Your task to perform on an android device: What's on my calendar today? Image 0: 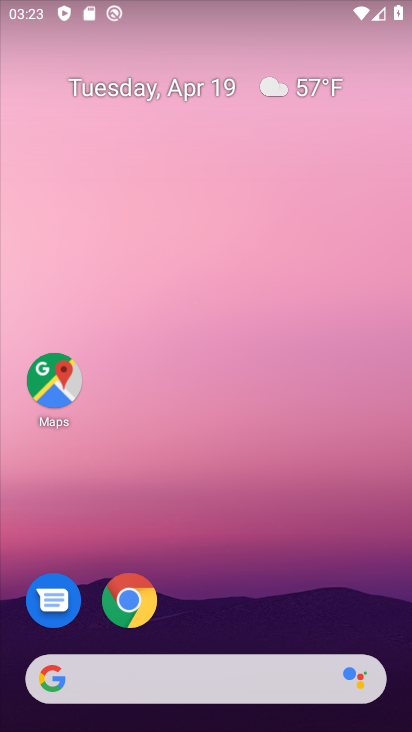
Step 0: drag from (249, 605) to (243, 154)
Your task to perform on an android device: What's on my calendar today? Image 1: 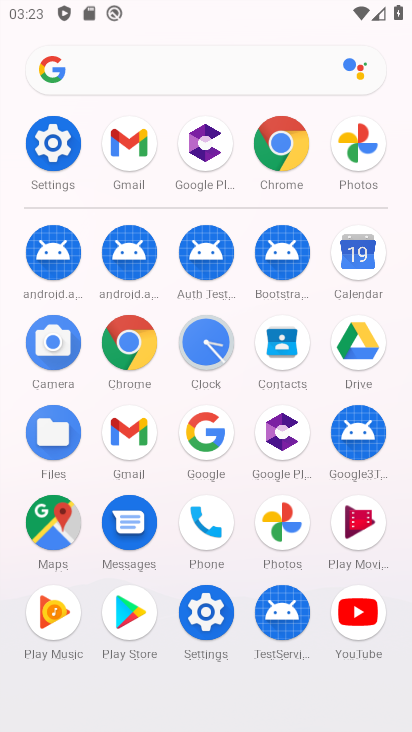
Step 1: click (361, 254)
Your task to perform on an android device: What's on my calendar today? Image 2: 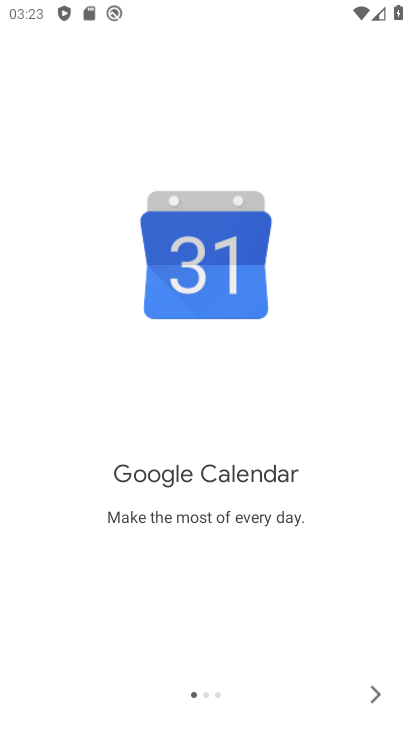
Step 2: click (381, 695)
Your task to perform on an android device: What's on my calendar today? Image 3: 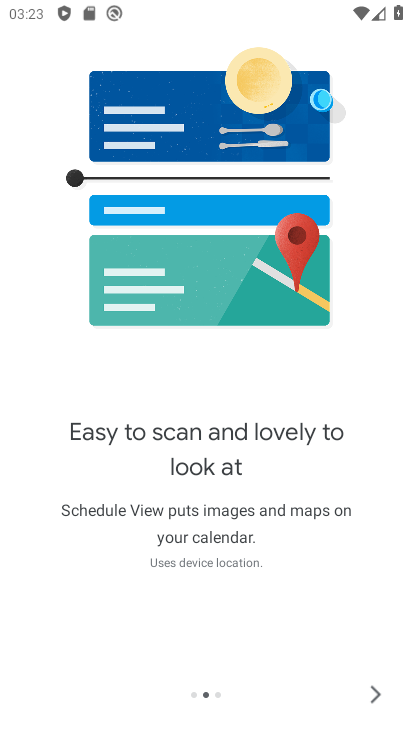
Step 3: click (381, 695)
Your task to perform on an android device: What's on my calendar today? Image 4: 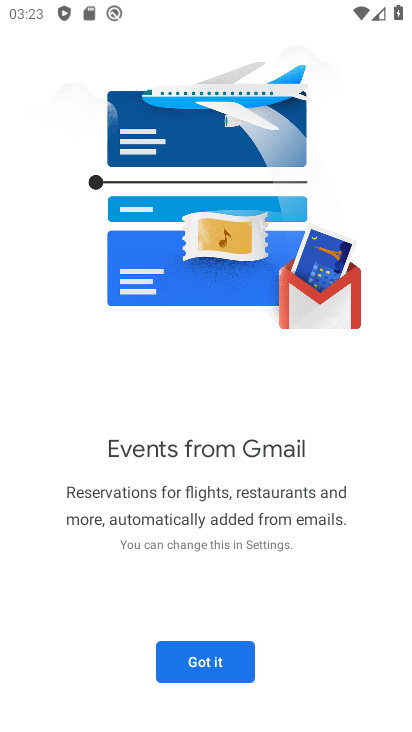
Step 4: click (240, 665)
Your task to perform on an android device: What's on my calendar today? Image 5: 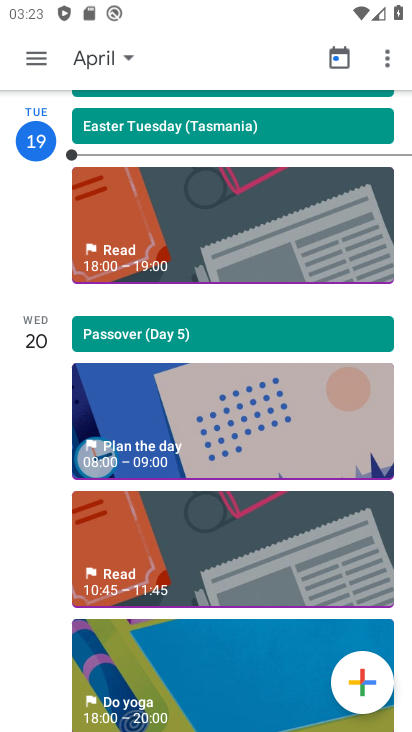
Step 5: click (127, 55)
Your task to perform on an android device: What's on my calendar today? Image 6: 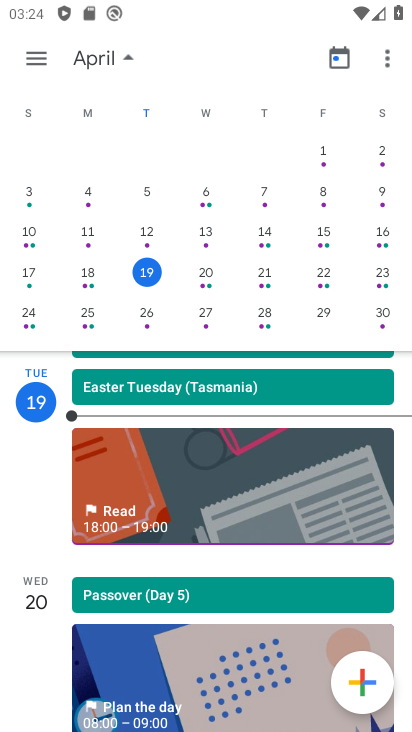
Step 6: click (109, 60)
Your task to perform on an android device: What's on my calendar today? Image 7: 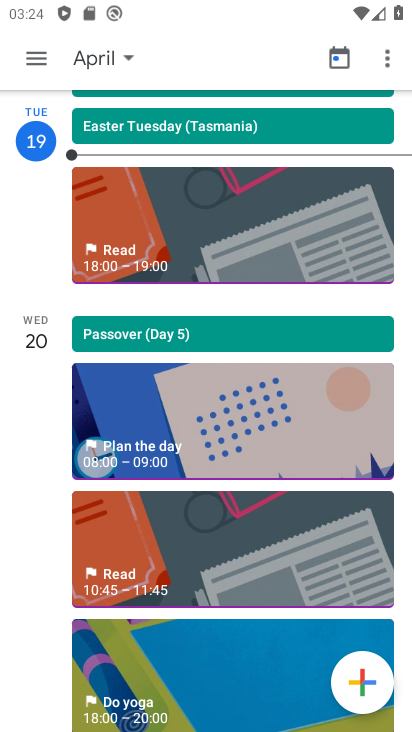
Step 7: task complete